Your task to perform on an android device: What is the recent news? Image 0: 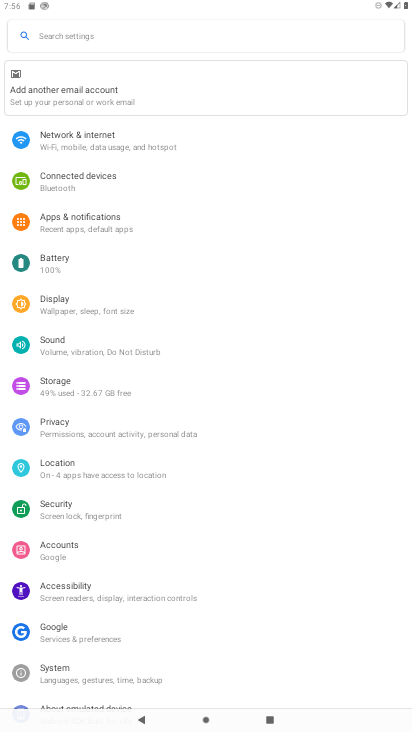
Step 0: press home button
Your task to perform on an android device: What is the recent news? Image 1: 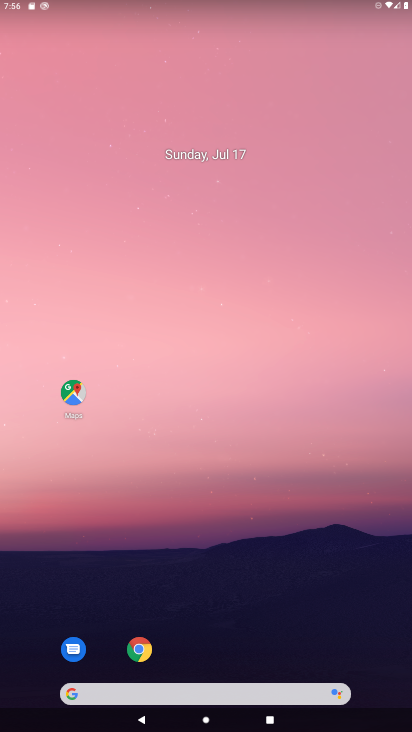
Step 1: click (252, 694)
Your task to perform on an android device: What is the recent news? Image 2: 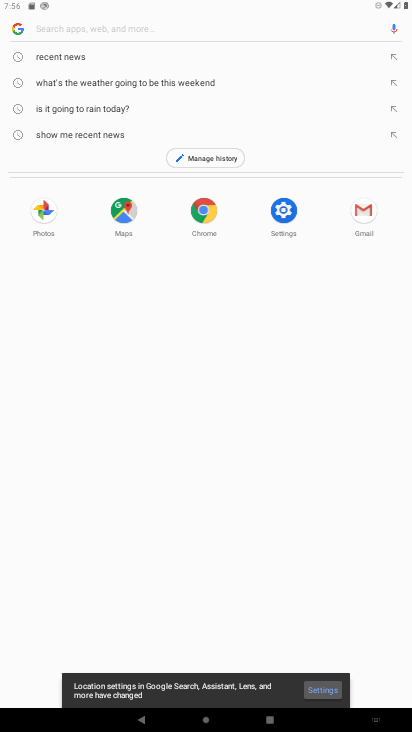
Step 2: click (55, 54)
Your task to perform on an android device: What is the recent news? Image 3: 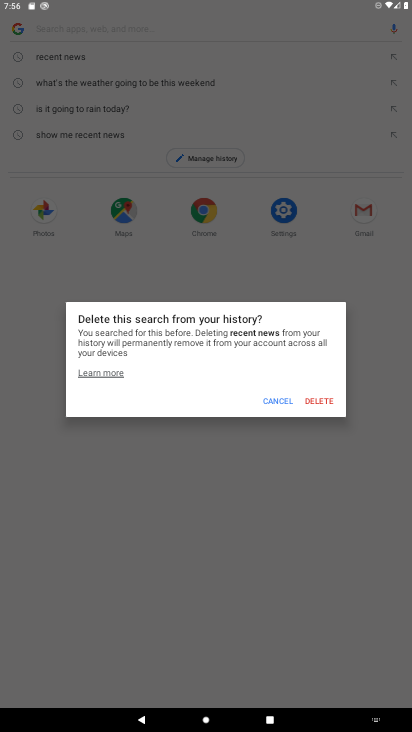
Step 3: click (277, 401)
Your task to perform on an android device: What is the recent news? Image 4: 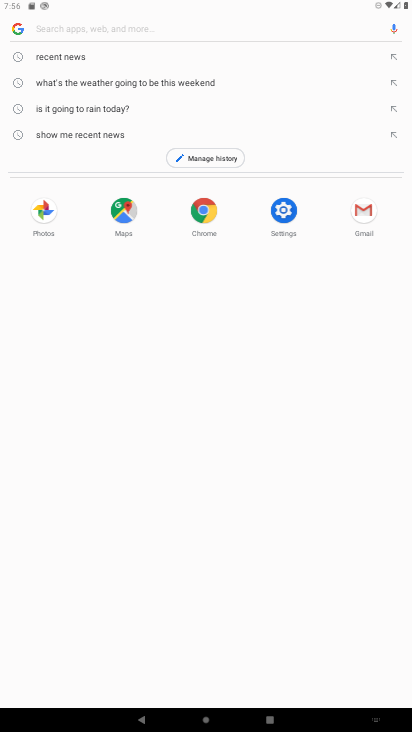
Step 4: click (60, 56)
Your task to perform on an android device: What is the recent news? Image 5: 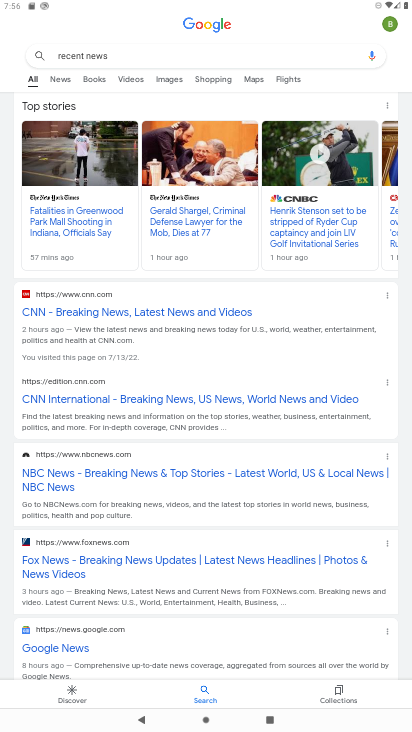
Step 5: task complete